Your task to perform on an android device: check google app version Image 0: 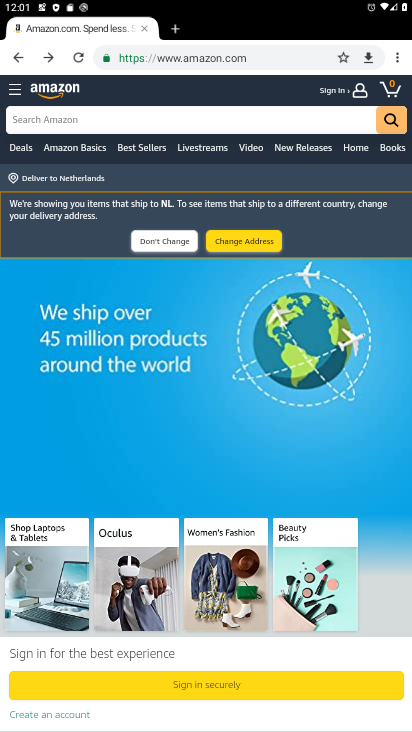
Step 0: press home button
Your task to perform on an android device: check google app version Image 1: 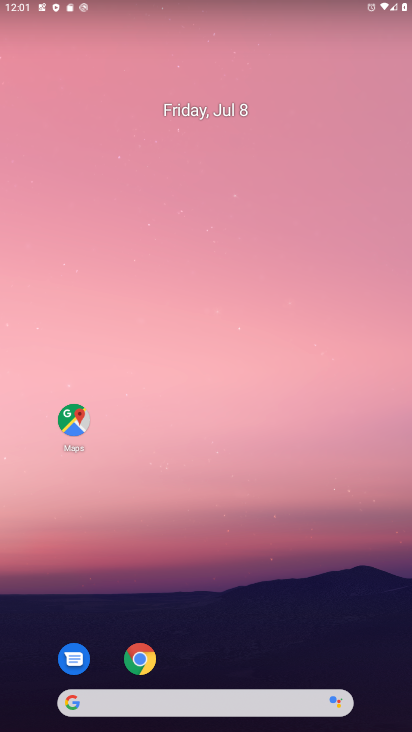
Step 1: click (70, 699)
Your task to perform on an android device: check google app version Image 2: 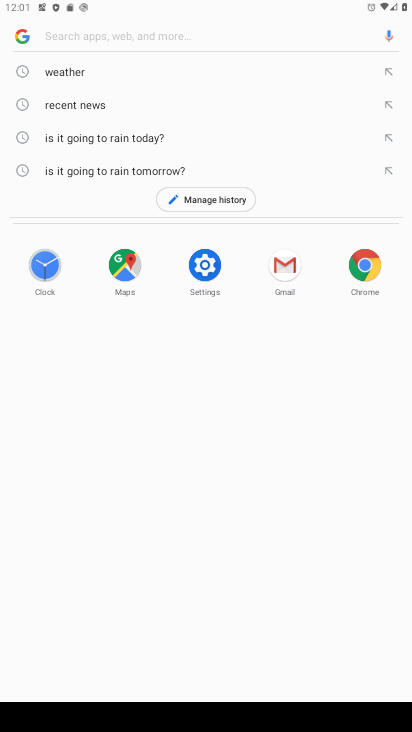
Step 2: click (17, 34)
Your task to perform on an android device: check google app version Image 3: 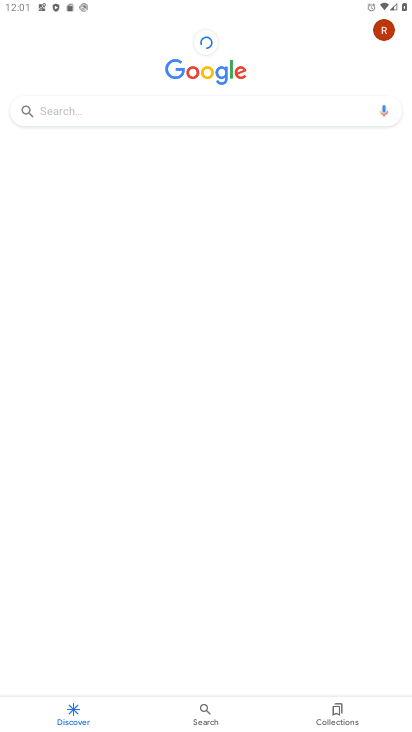
Step 3: click (386, 28)
Your task to perform on an android device: check google app version Image 4: 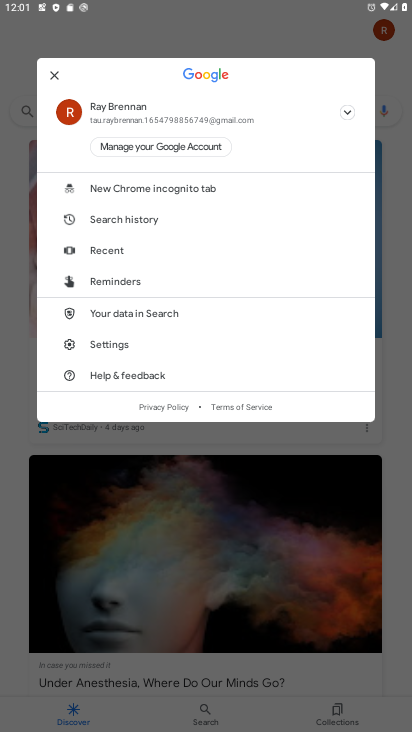
Step 4: click (109, 343)
Your task to perform on an android device: check google app version Image 5: 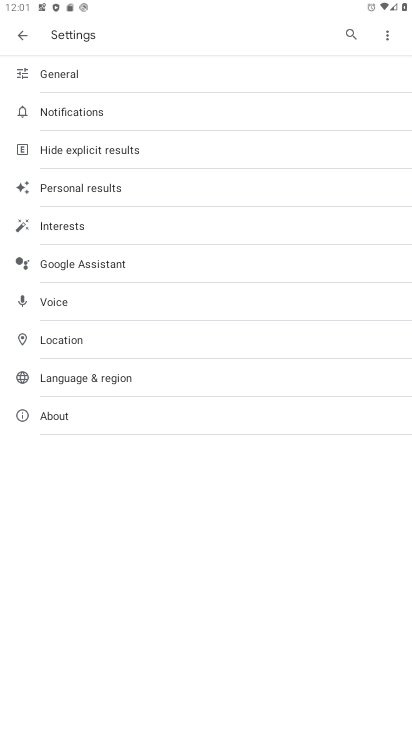
Step 5: click (67, 412)
Your task to perform on an android device: check google app version Image 6: 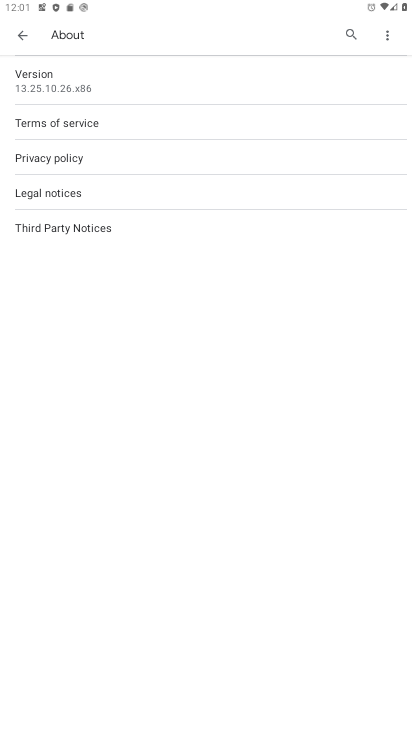
Step 6: task complete